Your task to perform on an android device: turn off notifications settings in the gmail app Image 0: 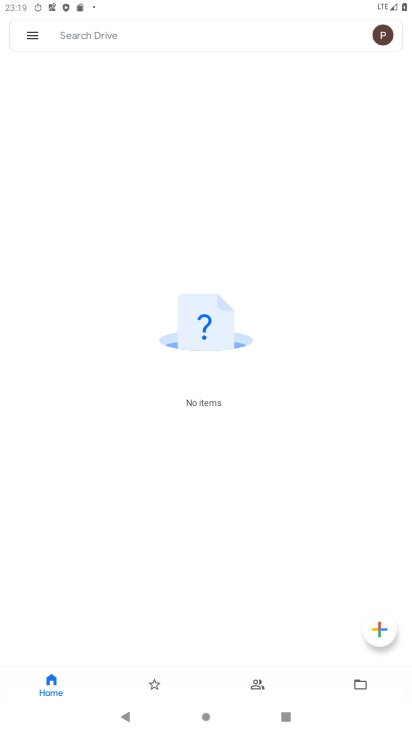
Step 0: press home button
Your task to perform on an android device: turn off notifications settings in the gmail app Image 1: 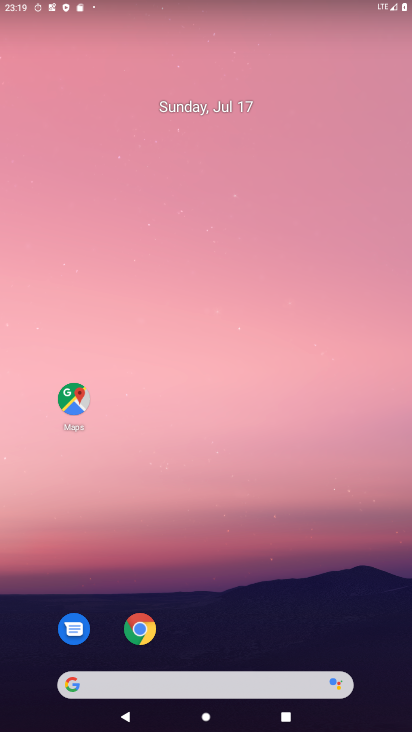
Step 1: drag from (230, 725) to (215, 136)
Your task to perform on an android device: turn off notifications settings in the gmail app Image 2: 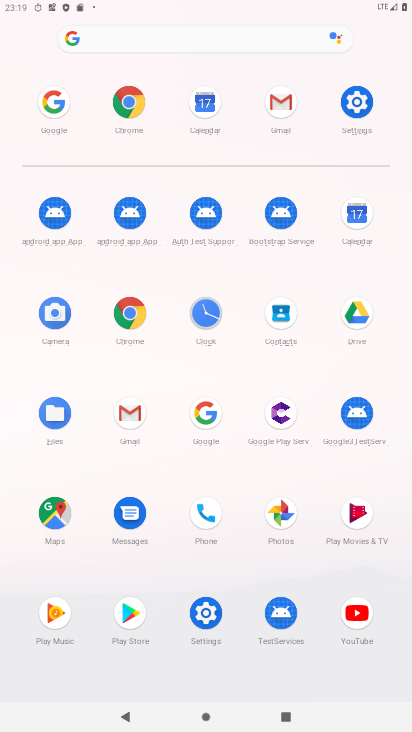
Step 2: click (130, 402)
Your task to perform on an android device: turn off notifications settings in the gmail app Image 3: 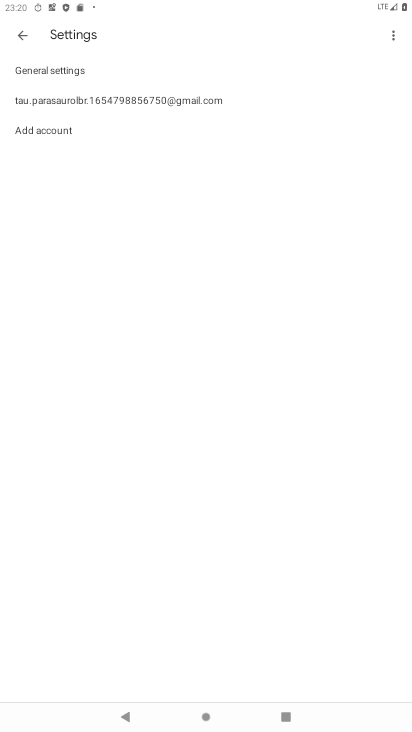
Step 3: click (56, 105)
Your task to perform on an android device: turn off notifications settings in the gmail app Image 4: 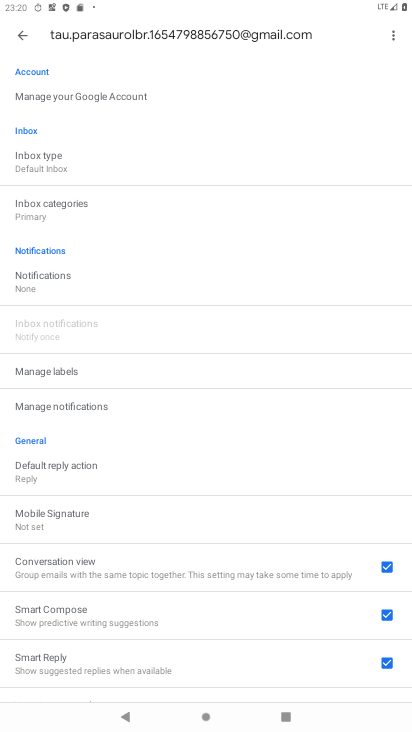
Step 4: task complete